Your task to perform on an android device: turn off priority inbox in the gmail app Image 0: 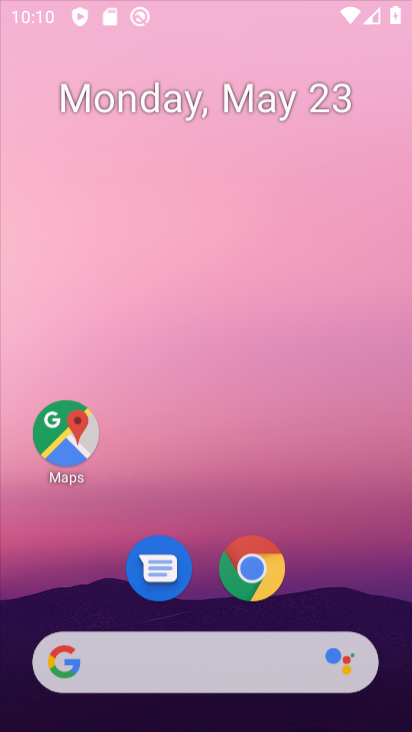
Step 0: drag from (283, 522) to (164, 28)
Your task to perform on an android device: turn off priority inbox in the gmail app Image 1: 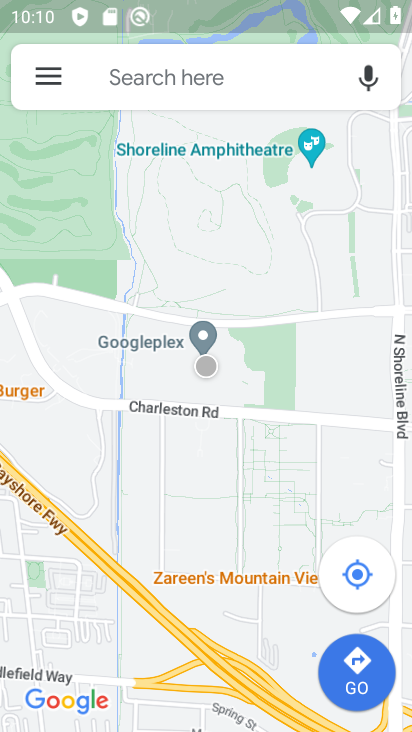
Step 1: press back button
Your task to perform on an android device: turn off priority inbox in the gmail app Image 2: 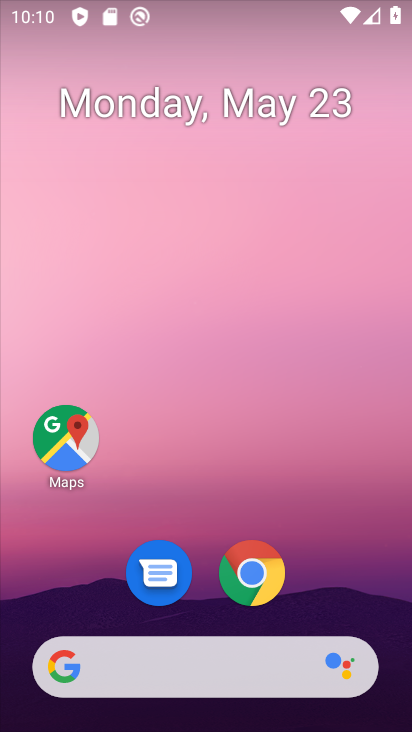
Step 2: drag from (324, 577) to (189, 36)
Your task to perform on an android device: turn off priority inbox in the gmail app Image 3: 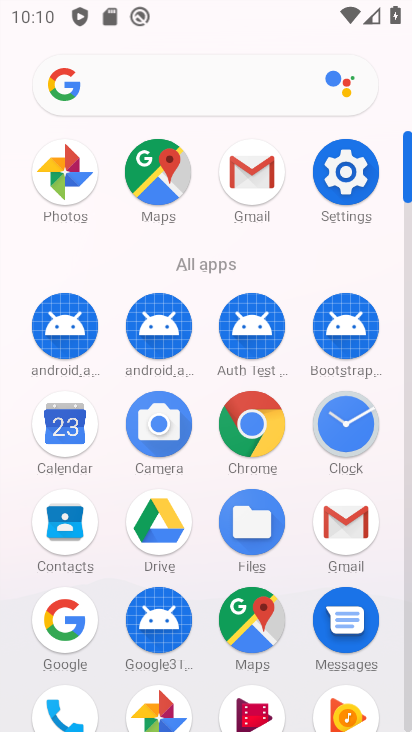
Step 3: drag from (0, 546) to (11, 223)
Your task to perform on an android device: turn off priority inbox in the gmail app Image 4: 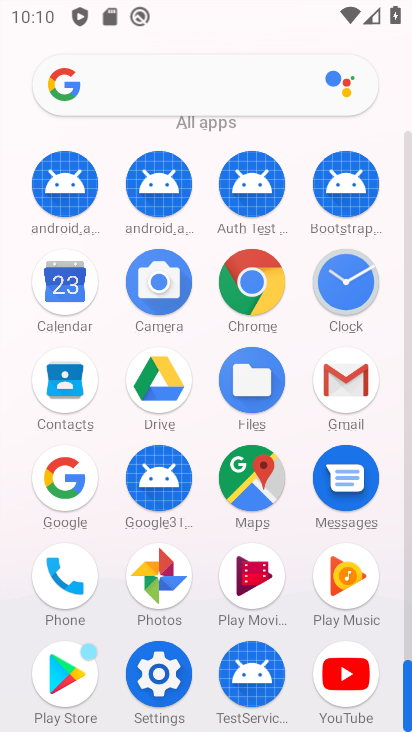
Step 4: drag from (9, 589) to (7, 208)
Your task to perform on an android device: turn off priority inbox in the gmail app Image 5: 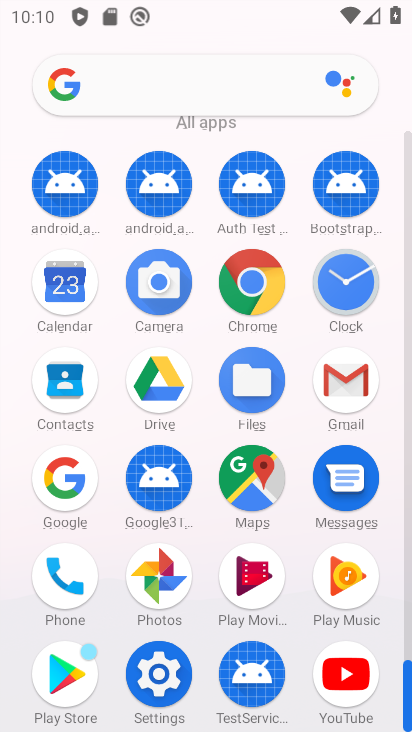
Step 5: click (345, 373)
Your task to perform on an android device: turn off priority inbox in the gmail app Image 6: 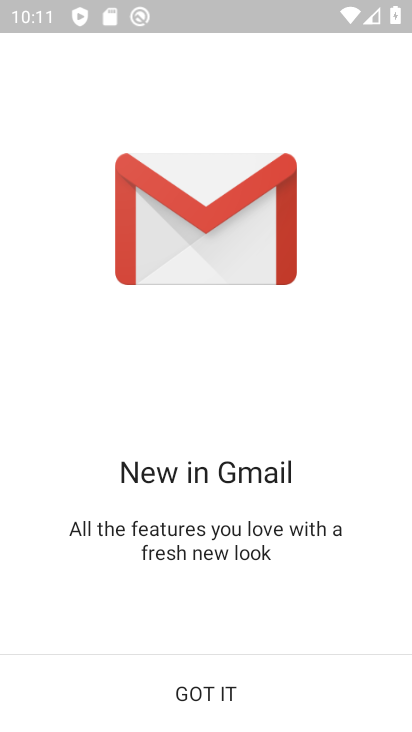
Step 6: click (245, 684)
Your task to perform on an android device: turn off priority inbox in the gmail app Image 7: 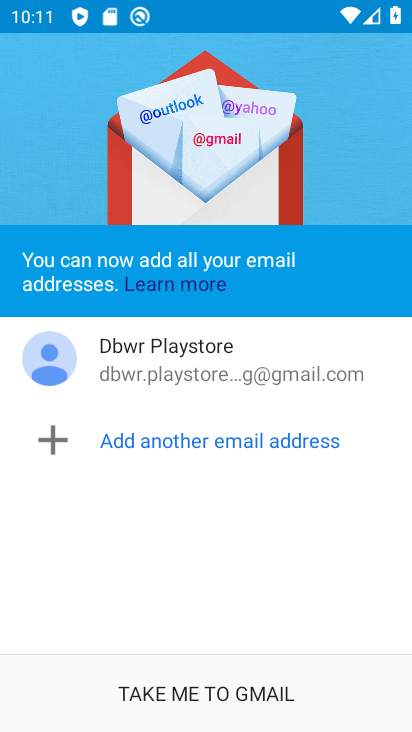
Step 7: click (226, 692)
Your task to perform on an android device: turn off priority inbox in the gmail app Image 8: 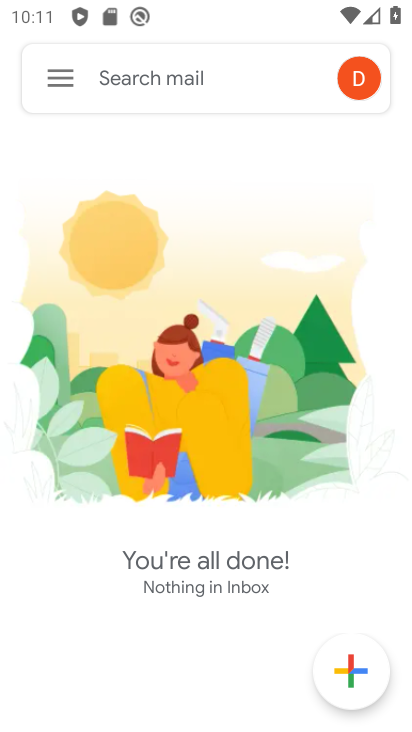
Step 8: click (52, 78)
Your task to perform on an android device: turn off priority inbox in the gmail app Image 9: 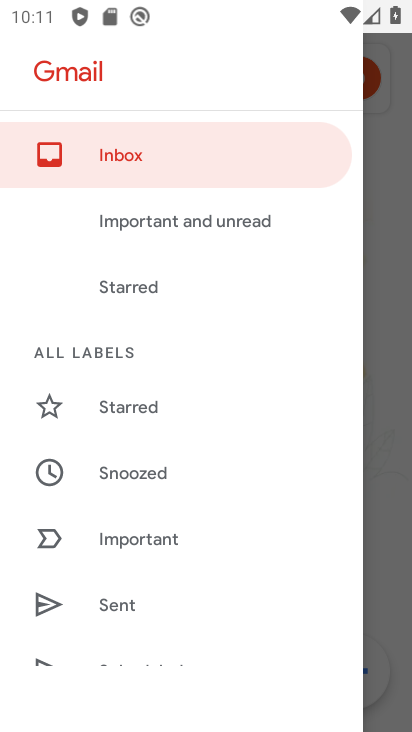
Step 9: drag from (206, 532) to (207, 139)
Your task to perform on an android device: turn off priority inbox in the gmail app Image 10: 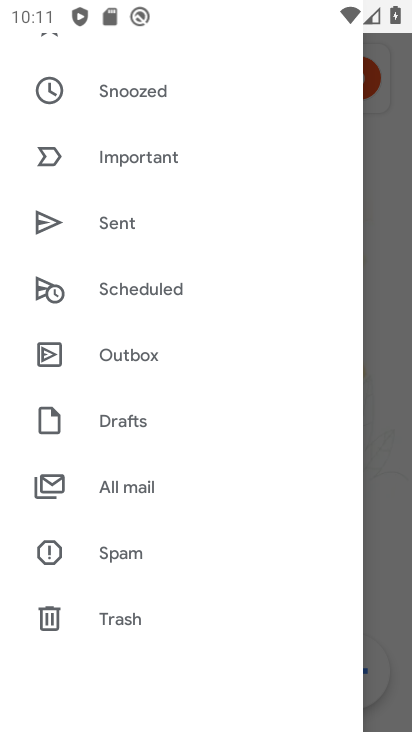
Step 10: drag from (192, 580) to (199, 162)
Your task to perform on an android device: turn off priority inbox in the gmail app Image 11: 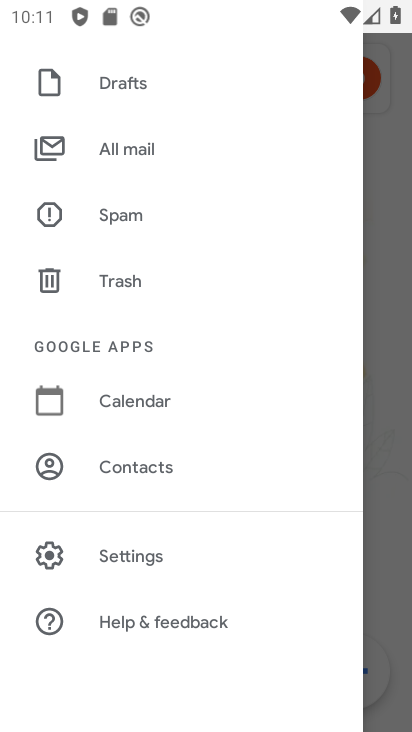
Step 11: click (136, 554)
Your task to perform on an android device: turn off priority inbox in the gmail app Image 12: 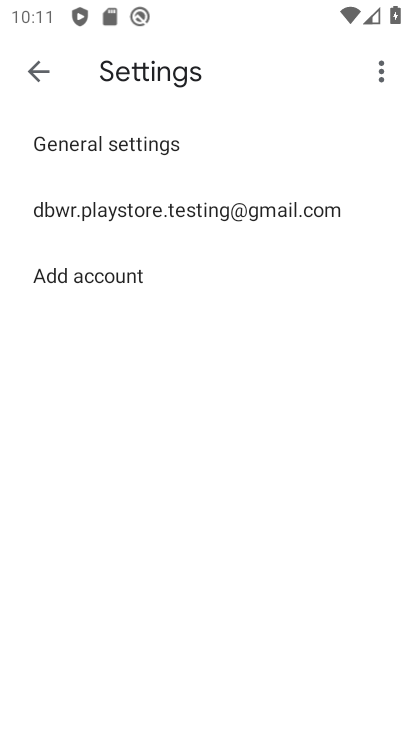
Step 12: click (193, 209)
Your task to perform on an android device: turn off priority inbox in the gmail app Image 13: 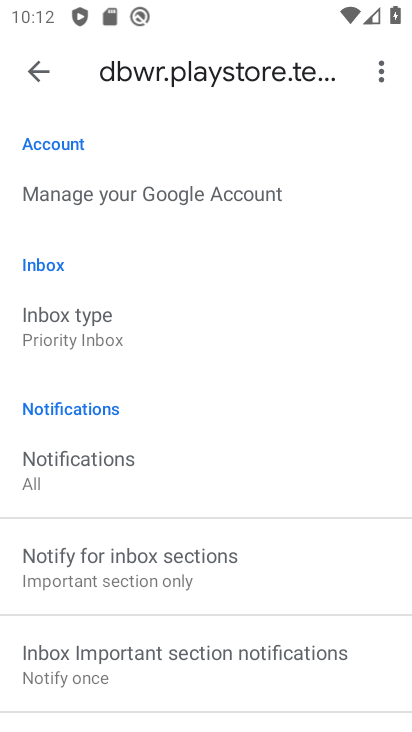
Step 13: drag from (267, 475) to (232, 175)
Your task to perform on an android device: turn off priority inbox in the gmail app Image 14: 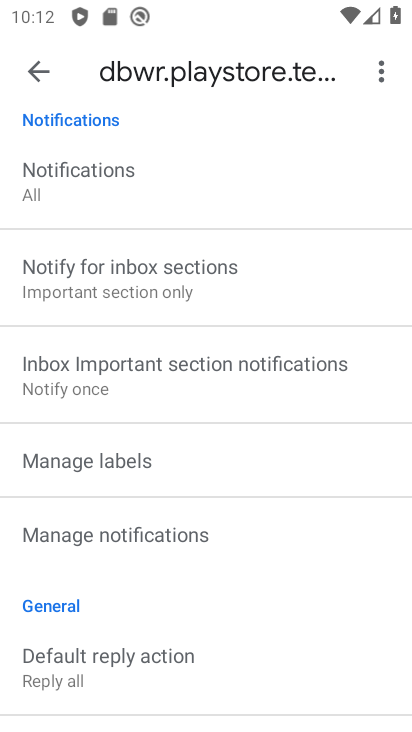
Step 14: drag from (237, 489) to (231, 218)
Your task to perform on an android device: turn off priority inbox in the gmail app Image 15: 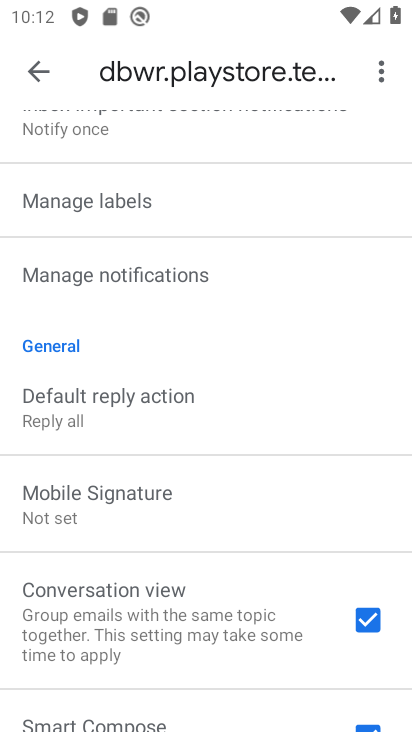
Step 15: drag from (233, 454) to (227, 173)
Your task to perform on an android device: turn off priority inbox in the gmail app Image 16: 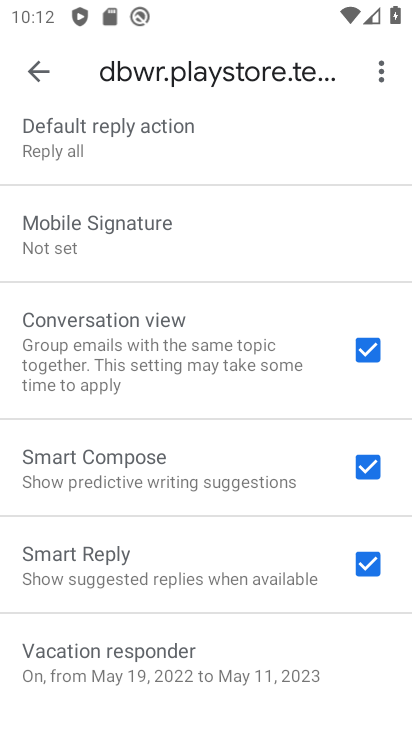
Step 16: drag from (206, 122) to (207, 592)
Your task to perform on an android device: turn off priority inbox in the gmail app Image 17: 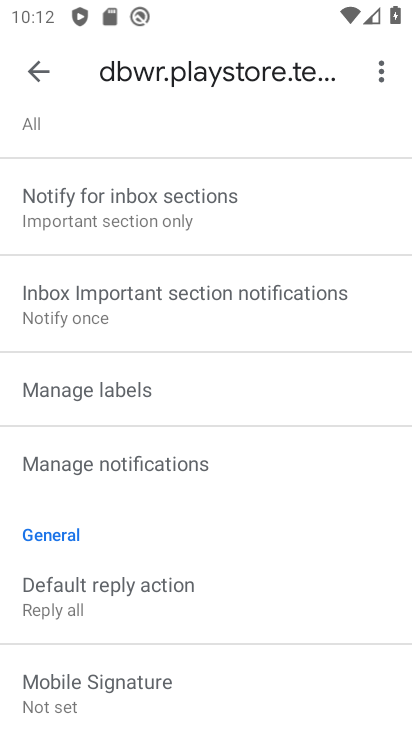
Step 17: drag from (201, 204) to (224, 536)
Your task to perform on an android device: turn off priority inbox in the gmail app Image 18: 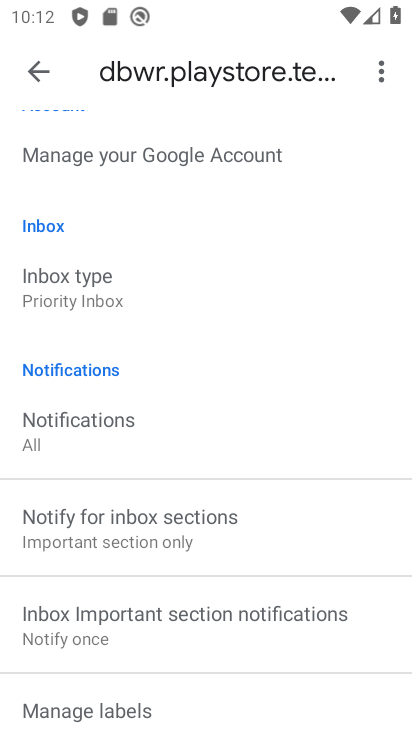
Step 18: drag from (132, 660) to (156, 219)
Your task to perform on an android device: turn off priority inbox in the gmail app Image 19: 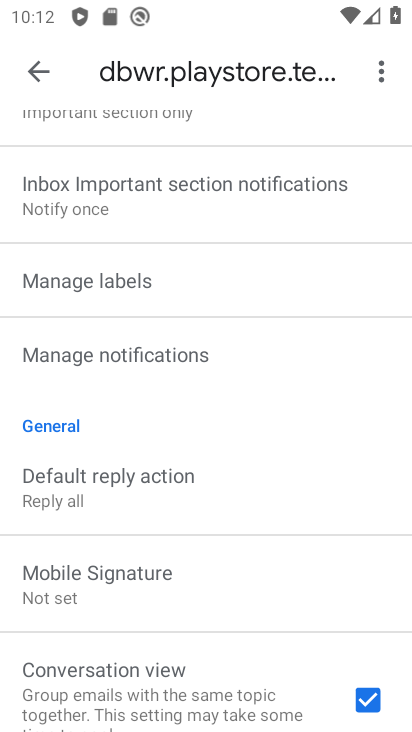
Step 19: click (144, 362)
Your task to perform on an android device: turn off priority inbox in the gmail app Image 20: 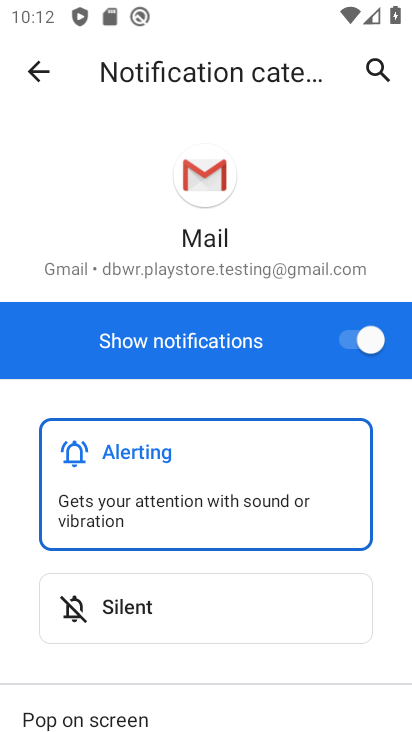
Step 20: click (347, 368)
Your task to perform on an android device: turn off priority inbox in the gmail app Image 21: 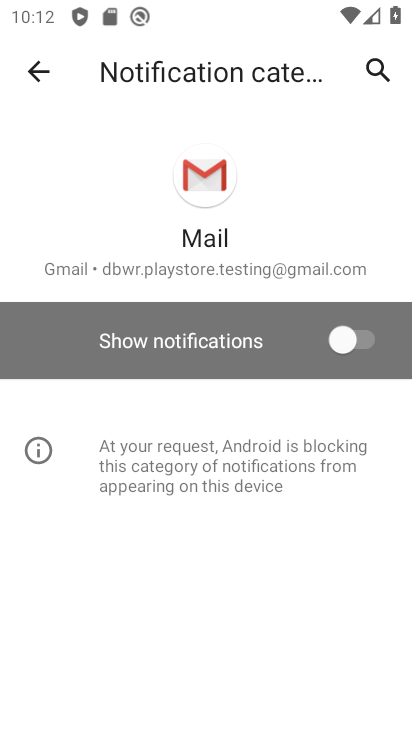
Step 21: task complete